Your task to perform on an android device: Open Yahoo.com Image 0: 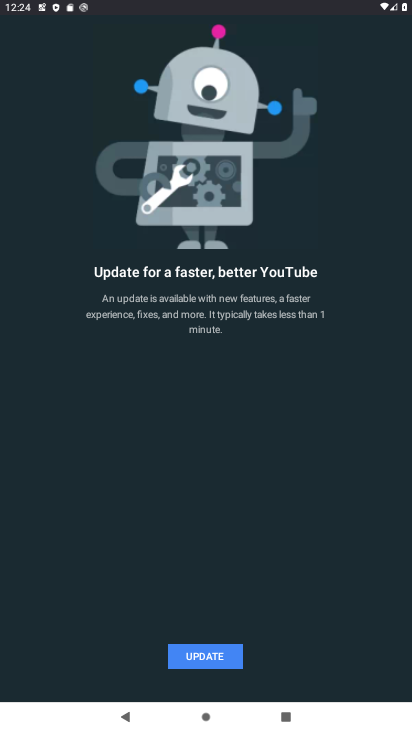
Step 0: press home button
Your task to perform on an android device: Open Yahoo.com Image 1: 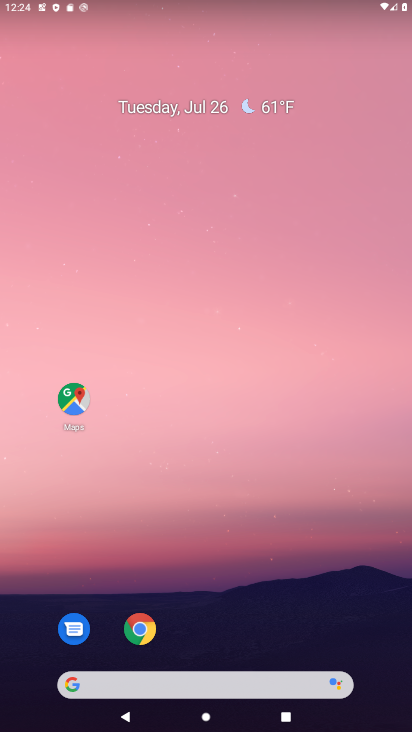
Step 1: click (133, 628)
Your task to perform on an android device: Open Yahoo.com Image 2: 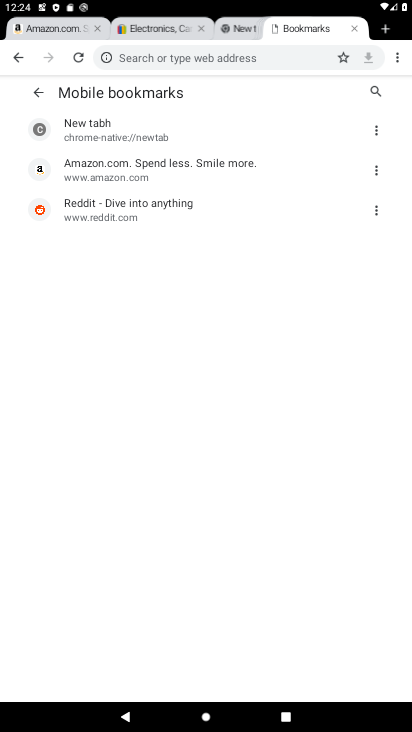
Step 2: click (382, 27)
Your task to perform on an android device: Open Yahoo.com Image 3: 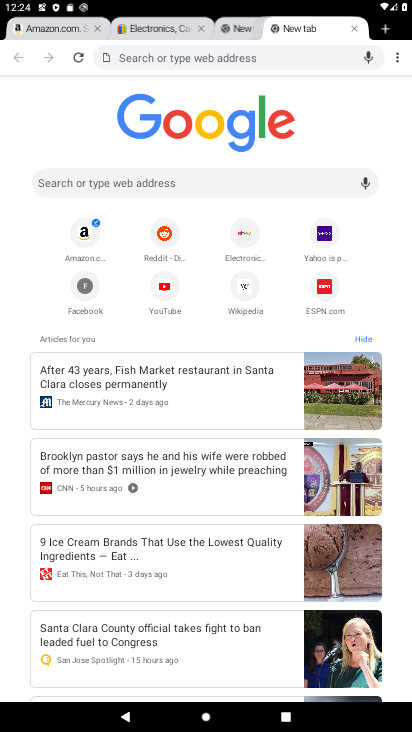
Step 3: click (334, 234)
Your task to perform on an android device: Open Yahoo.com Image 4: 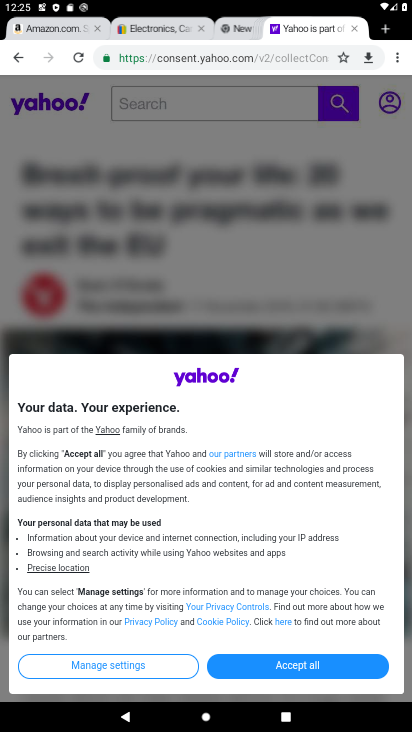
Step 4: task complete